Your task to perform on an android device: turn off improve location accuracy Image 0: 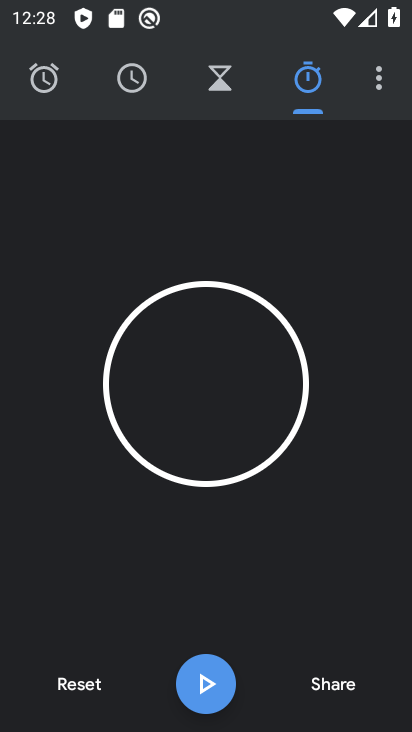
Step 0: press back button
Your task to perform on an android device: turn off improve location accuracy Image 1: 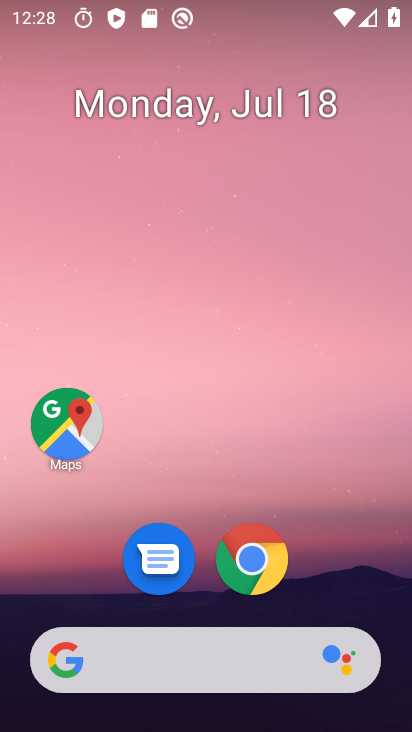
Step 1: drag from (76, 581) to (215, 31)
Your task to perform on an android device: turn off improve location accuracy Image 2: 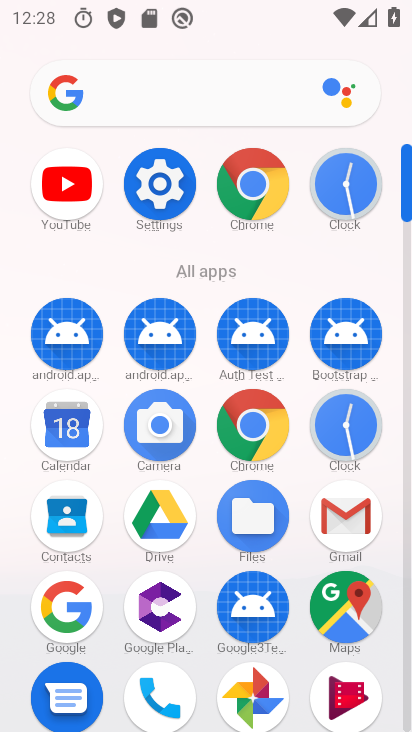
Step 2: click (151, 196)
Your task to perform on an android device: turn off improve location accuracy Image 3: 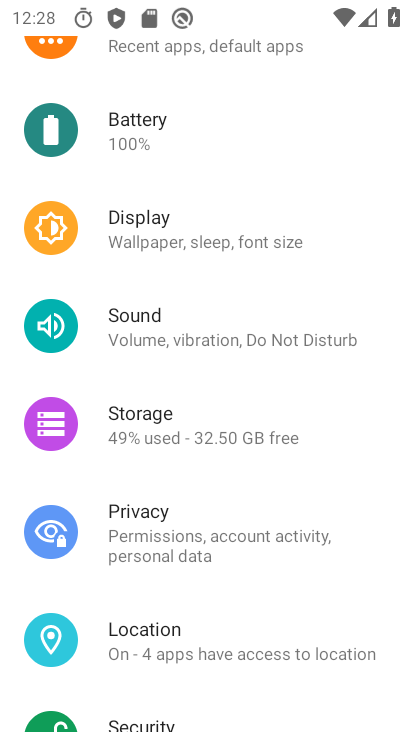
Step 3: click (138, 623)
Your task to perform on an android device: turn off improve location accuracy Image 4: 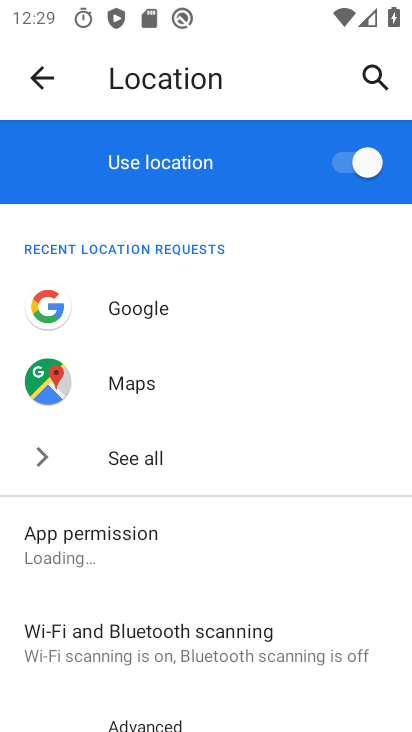
Step 4: drag from (164, 667) to (248, 148)
Your task to perform on an android device: turn off improve location accuracy Image 5: 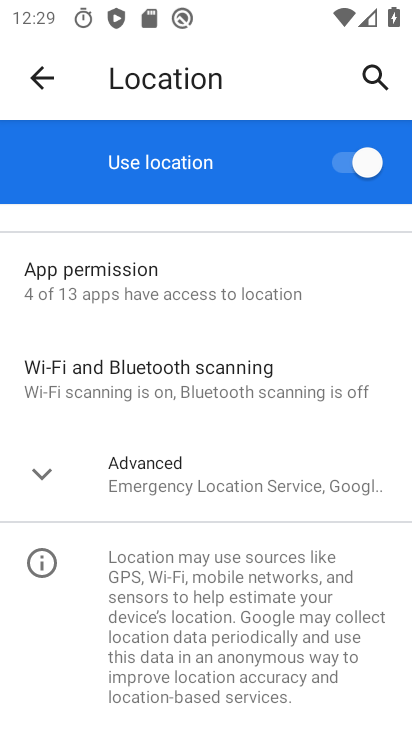
Step 5: click (159, 461)
Your task to perform on an android device: turn off improve location accuracy Image 6: 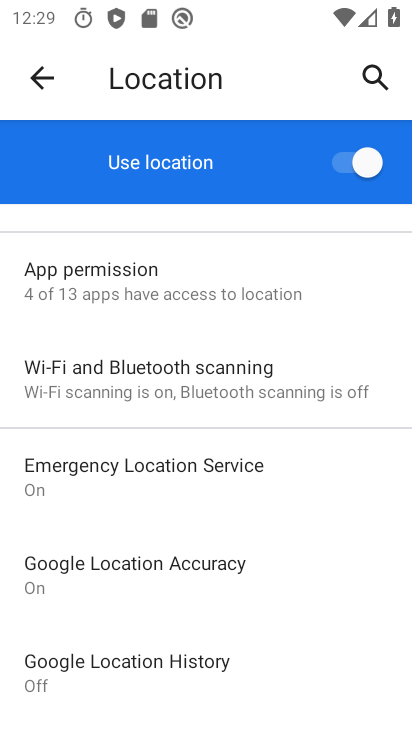
Step 6: click (148, 575)
Your task to perform on an android device: turn off improve location accuracy Image 7: 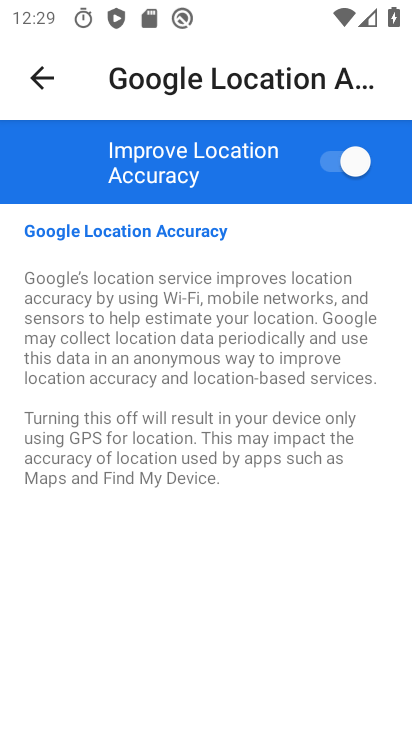
Step 7: click (354, 151)
Your task to perform on an android device: turn off improve location accuracy Image 8: 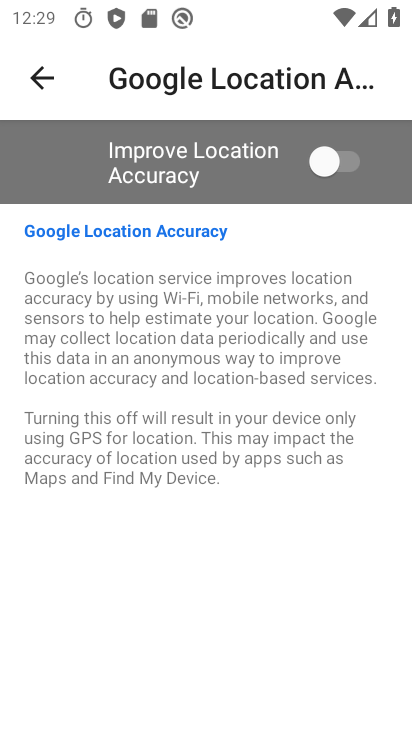
Step 8: task complete